Your task to perform on an android device: change your default location settings in chrome Image 0: 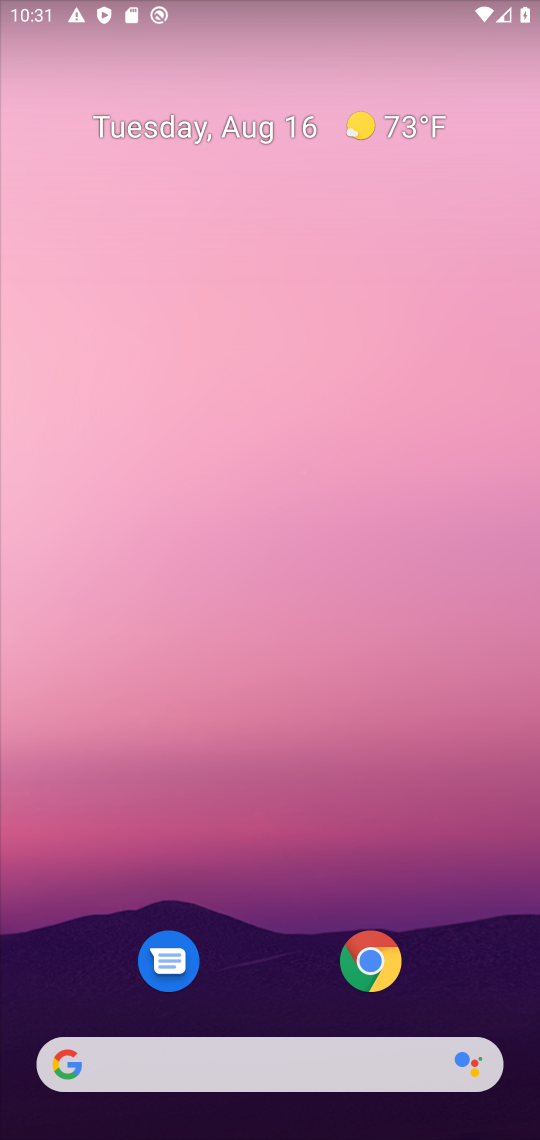
Step 0: click (371, 971)
Your task to perform on an android device: change your default location settings in chrome Image 1: 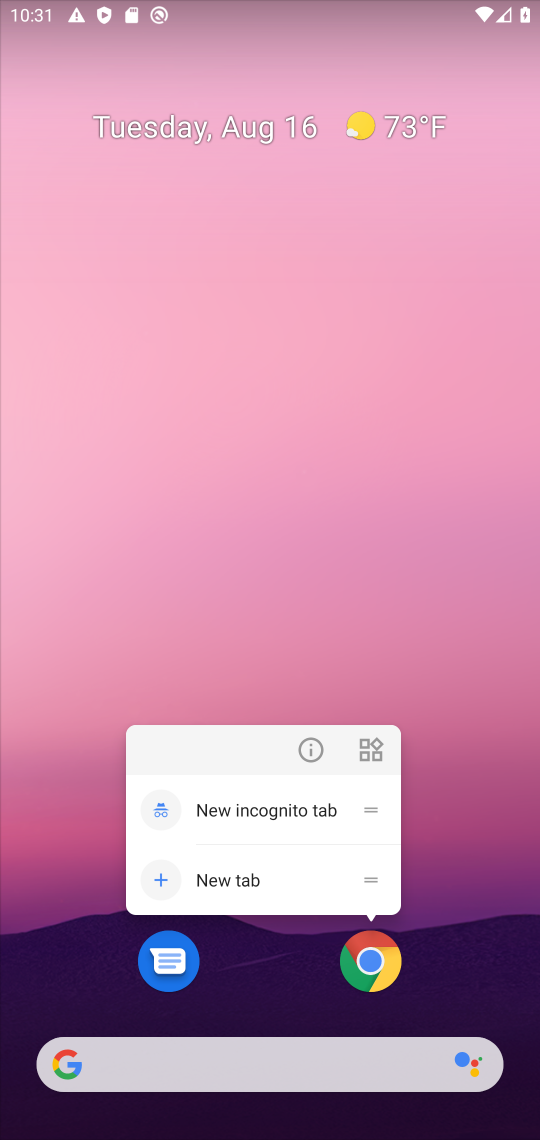
Step 1: click (209, 887)
Your task to perform on an android device: change your default location settings in chrome Image 2: 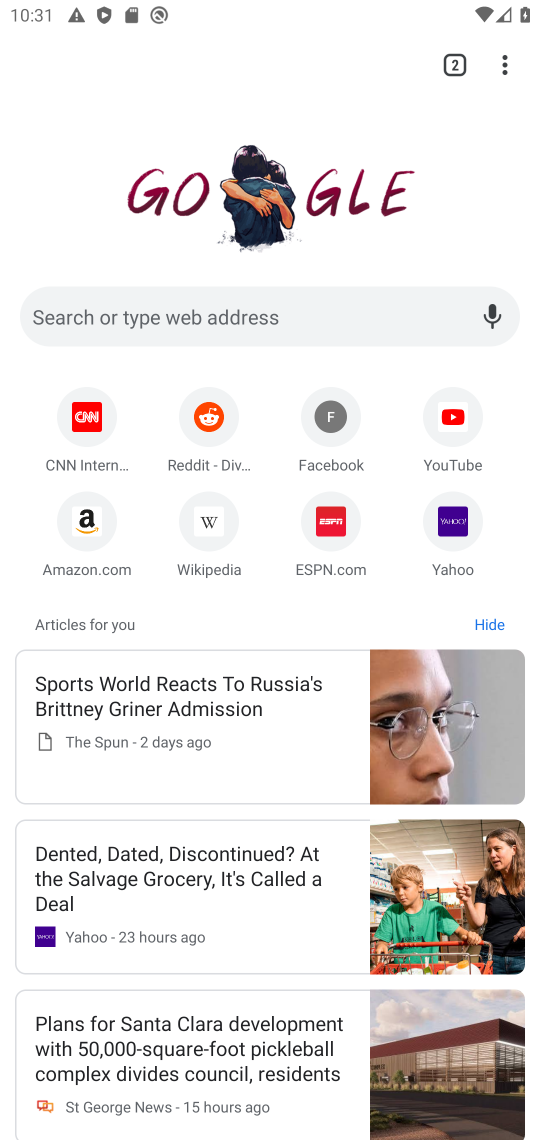
Step 2: task complete